Your task to perform on an android device: Open settings on Google Maps Image 0: 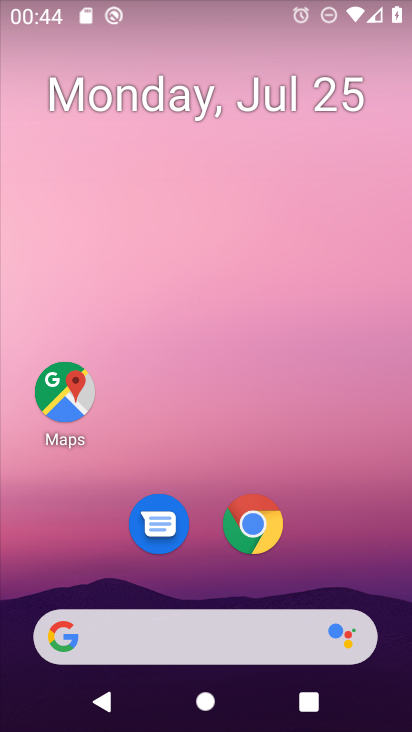
Step 0: click (69, 392)
Your task to perform on an android device: Open settings on Google Maps Image 1: 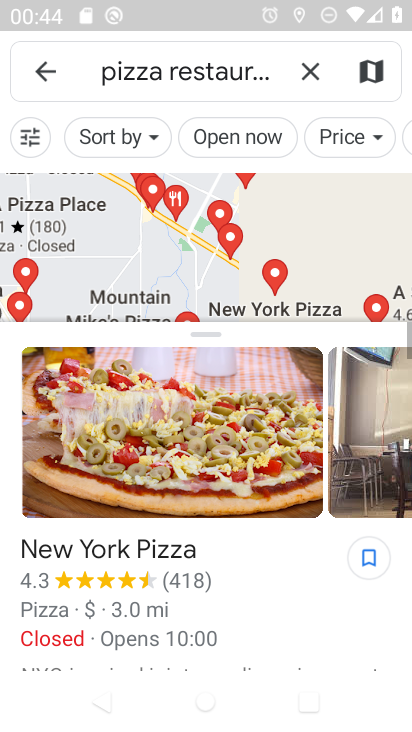
Step 1: click (43, 71)
Your task to perform on an android device: Open settings on Google Maps Image 2: 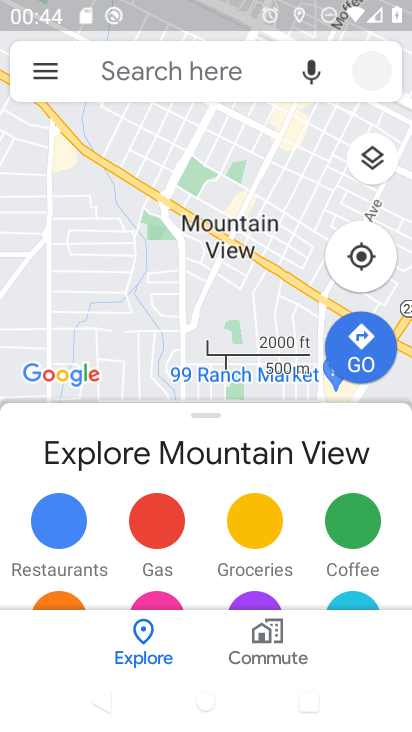
Step 2: click (45, 75)
Your task to perform on an android device: Open settings on Google Maps Image 3: 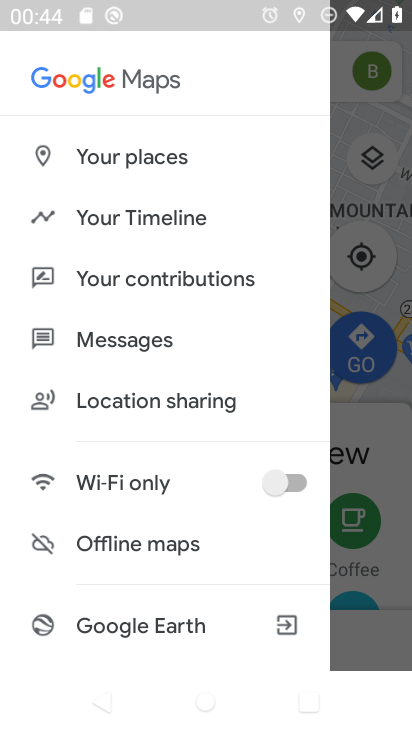
Step 3: drag from (203, 598) to (294, 104)
Your task to perform on an android device: Open settings on Google Maps Image 4: 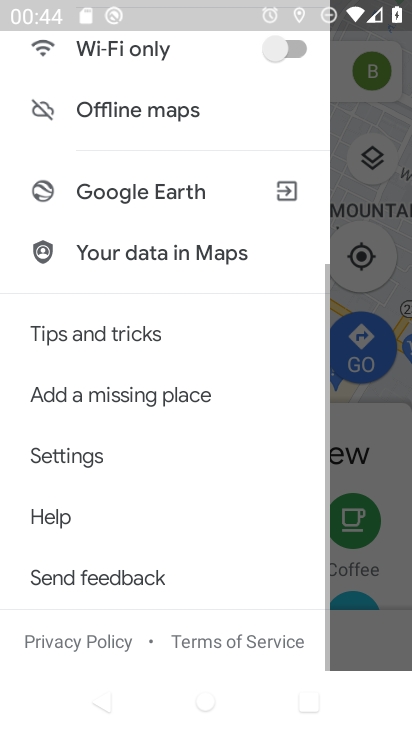
Step 4: click (81, 462)
Your task to perform on an android device: Open settings on Google Maps Image 5: 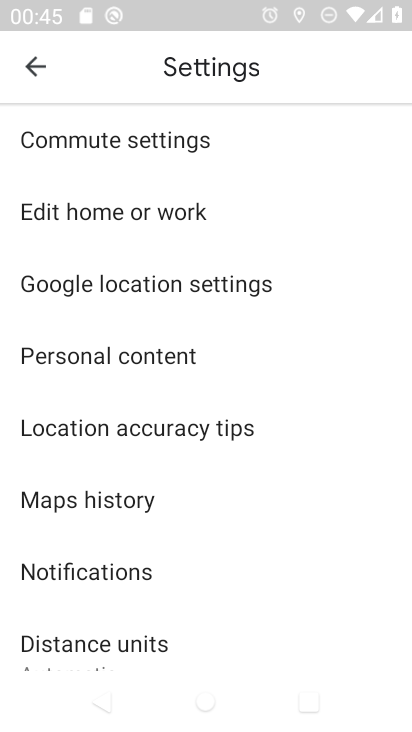
Step 5: task complete